Your task to perform on an android device: Open wifi settings Image 0: 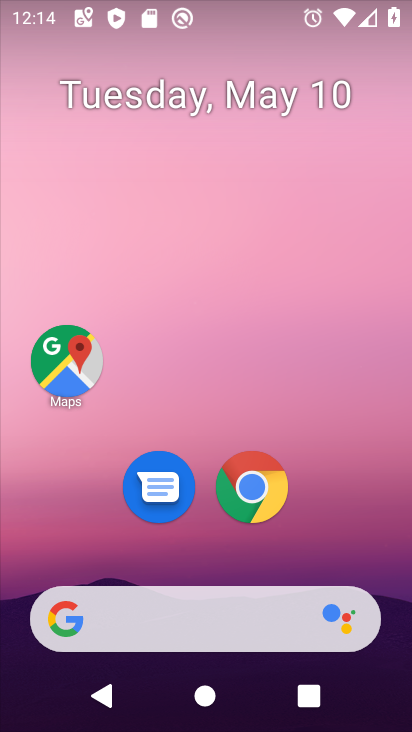
Step 0: drag from (305, 553) to (293, 113)
Your task to perform on an android device: Open wifi settings Image 1: 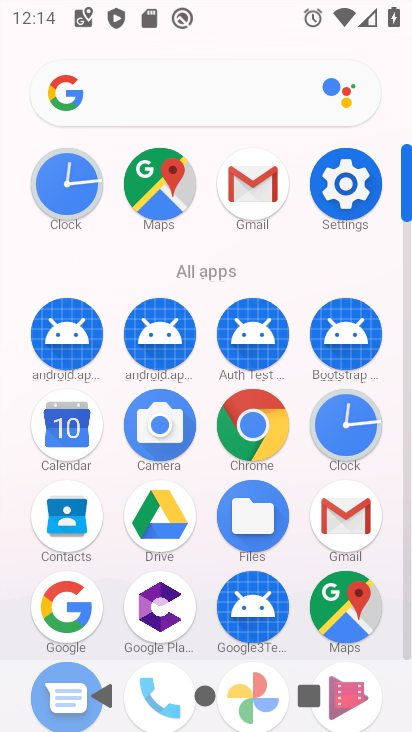
Step 1: click (344, 203)
Your task to perform on an android device: Open wifi settings Image 2: 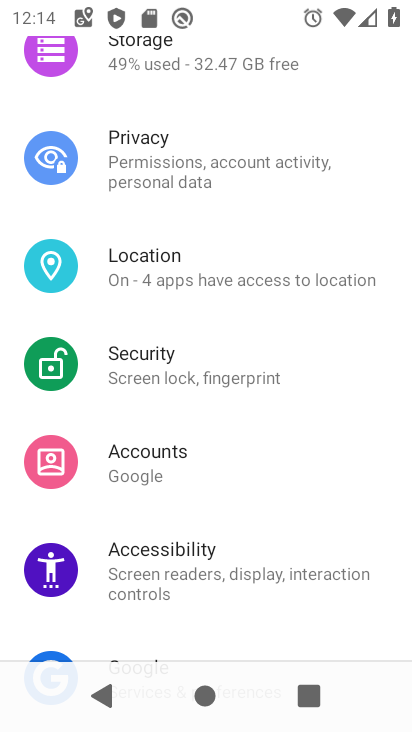
Step 2: drag from (277, 217) to (224, 609)
Your task to perform on an android device: Open wifi settings Image 3: 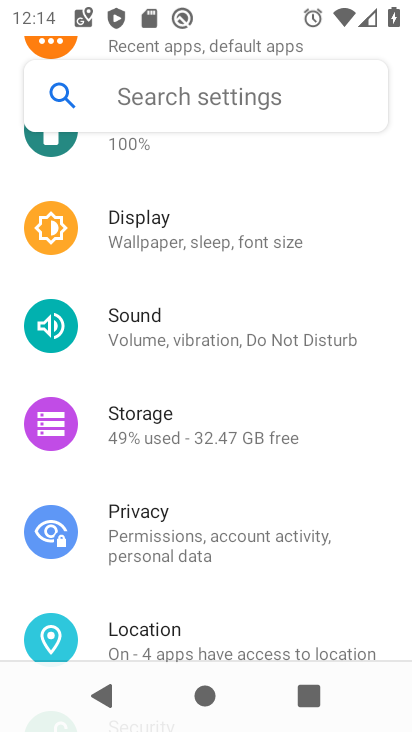
Step 3: drag from (224, 273) to (222, 521)
Your task to perform on an android device: Open wifi settings Image 4: 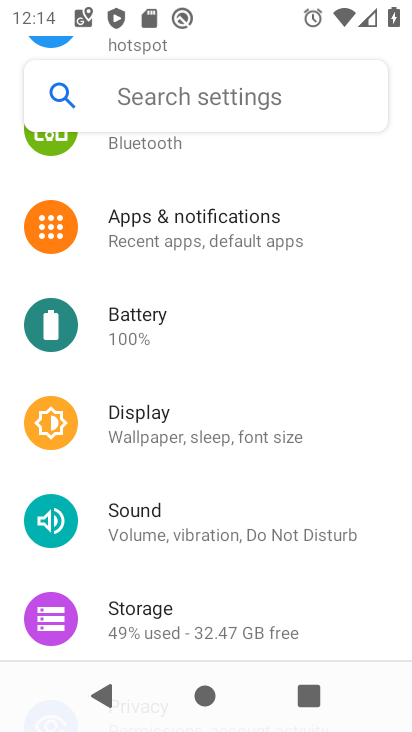
Step 4: drag from (206, 264) to (209, 624)
Your task to perform on an android device: Open wifi settings Image 5: 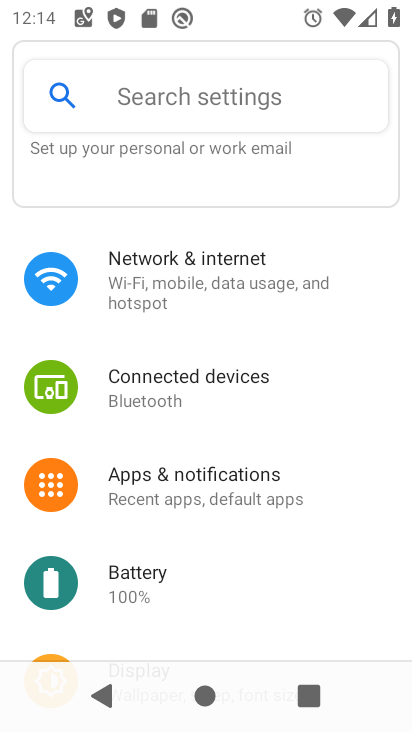
Step 5: click (277, 281)
Your task to perform on an android device: Open wifi settings Image 6: 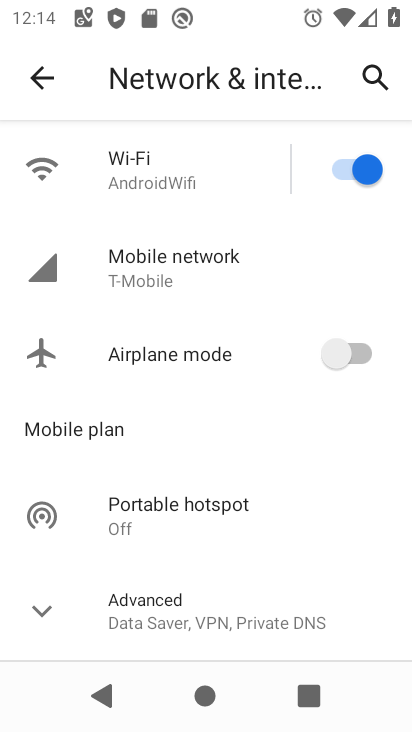
Step 6: click (109, 149)
Your task to perform on an android device: Open wifi settings Image 7: 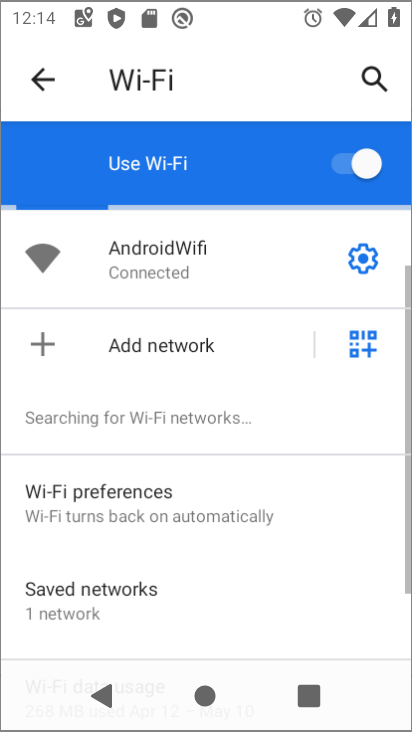
Step 7: task complete